Your task to perform on an android device: What's the weather? Image 0: 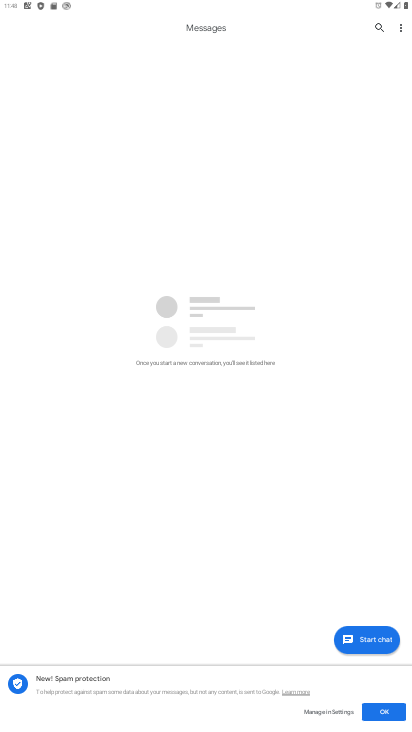
Step 0: press home button
Your task to perform on an android device: What's the weather? Image 1: 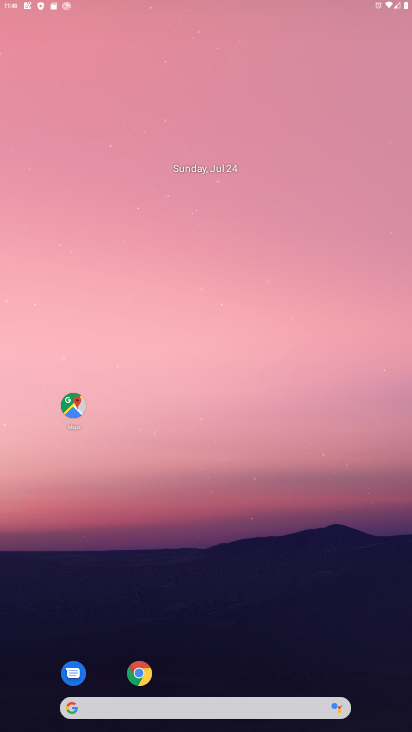
Step 1: drag from (307, 592) to (289, 74)
Your task to perform on an android device: What's the weather? Image 2: 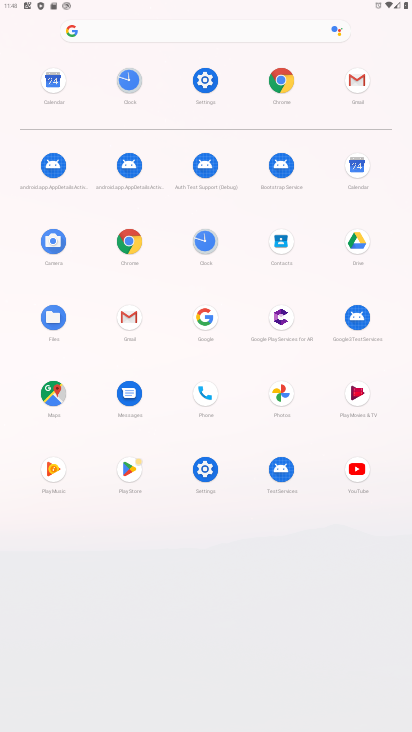
Step 2: click (275, 74)
Your task to perform on an android device: What's the weather? Image 3: 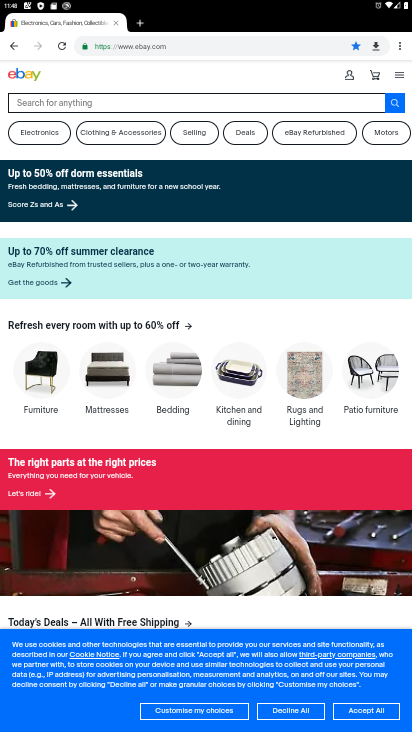
Step 3: click (218, 43)
Your task to perform on an android device: What's the weather? Image 4: 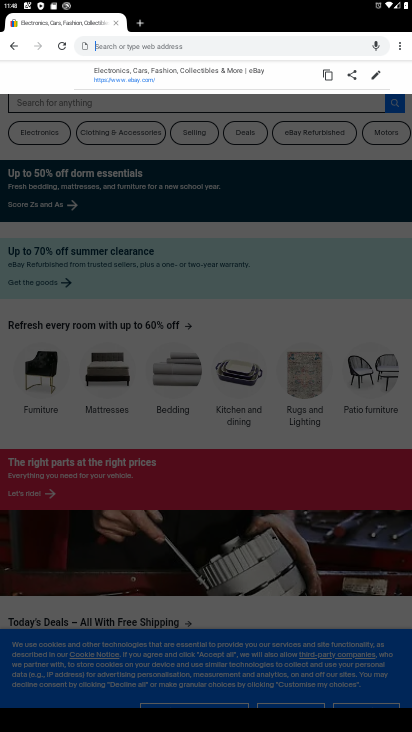
Step 4: type "weather"
Your task to perform on an android device: What's the weather? Image 5: 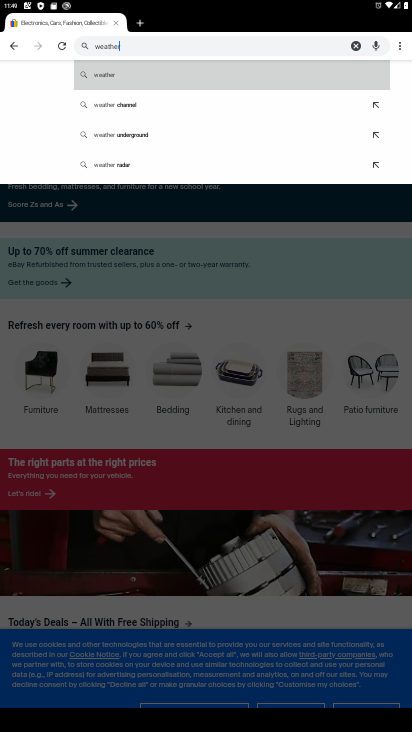
Step 5: click (114, 70)
Your task to perform on an android device: What's the weather? Image 6: 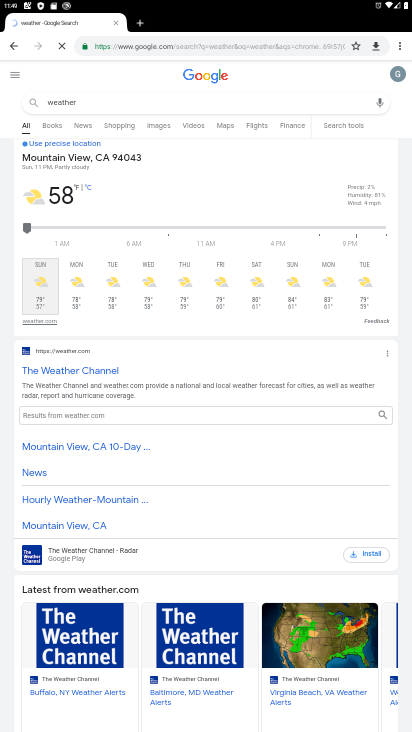
Step 6: task complete